Your task to perform on an android device: Show me popular games on the Play Store Image 0: 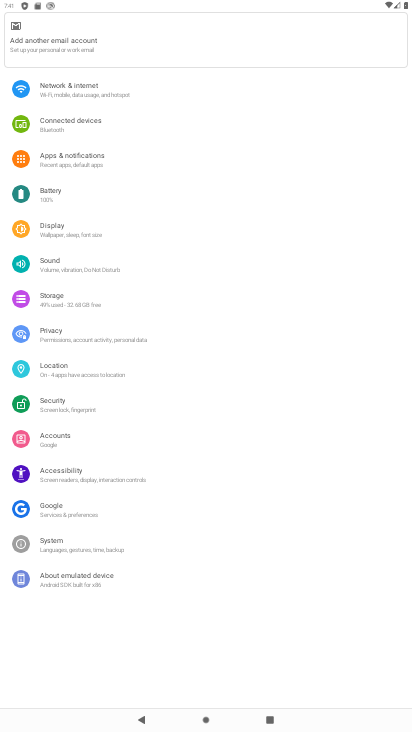
Step 0: press home button
Your task to perform on an android device: Show me popular games on the Play Store Image 1: 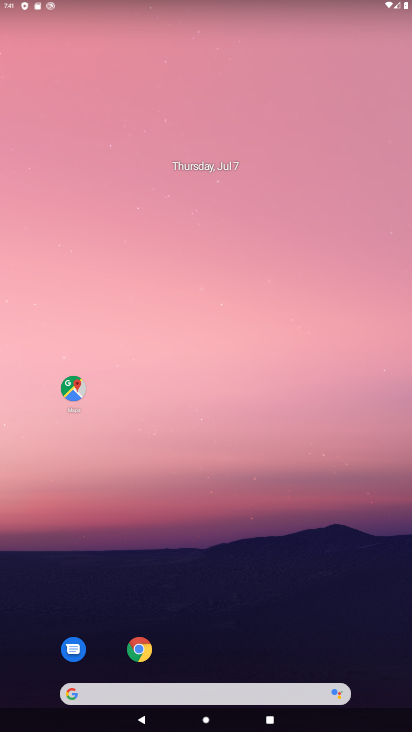
Step 1: drag from (221, 658) to (270, 80)
Your task to perform on an android device: Show me popular games on the Play Store Image 2: 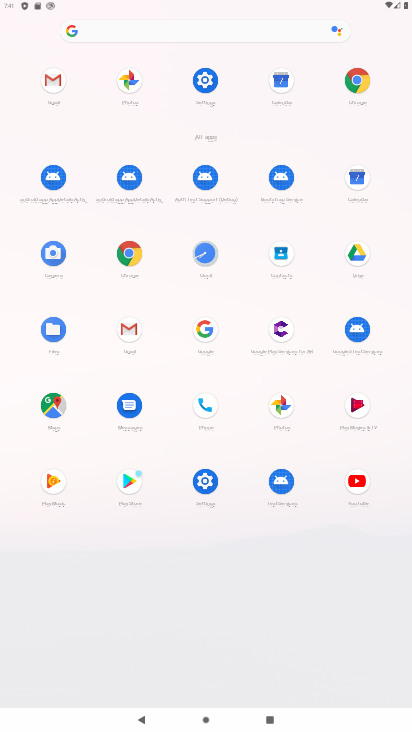
Step 2: click (125, 476)
Your task to perform on an android device: Show me popular games on the Play Store Image 3: 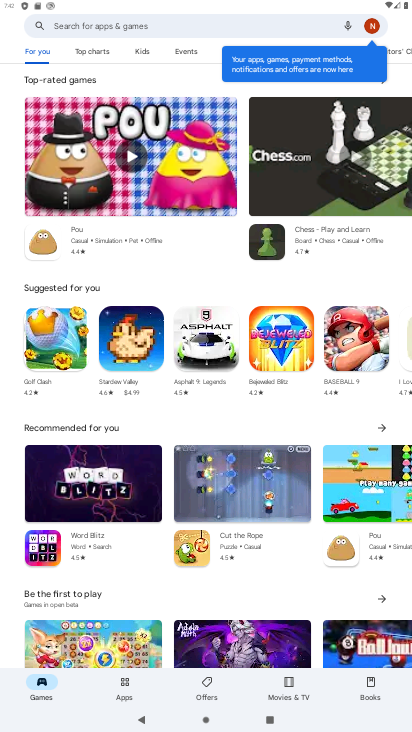
Step 3: task complete